Your task to perform on an android device: Play the last video I watched on Youtube Image 0: 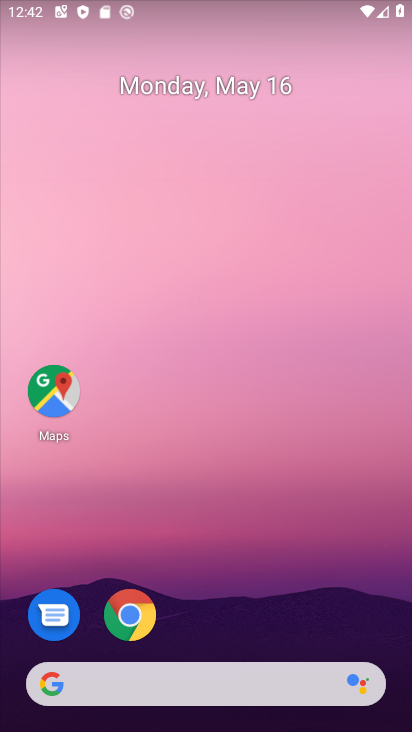
Step 0: drag from (355, 663) to (359, 70)
Your task to perform on an android device: Play the last video I watched on Youtube Image 1: 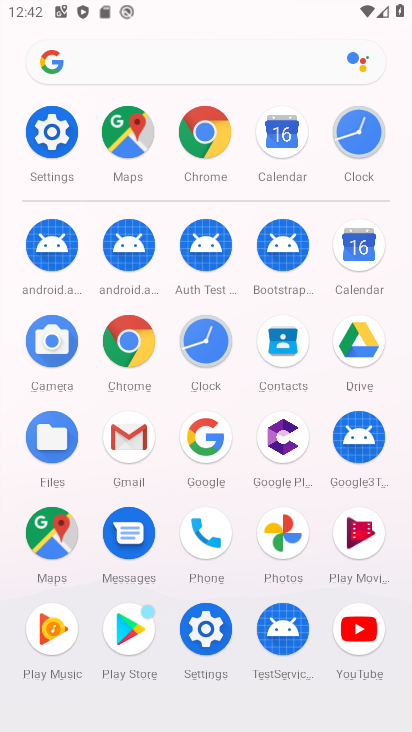
Step 1: click (356, 632)
Your task to perform on an android device: Play the last video I watched on Youtube Image 2: 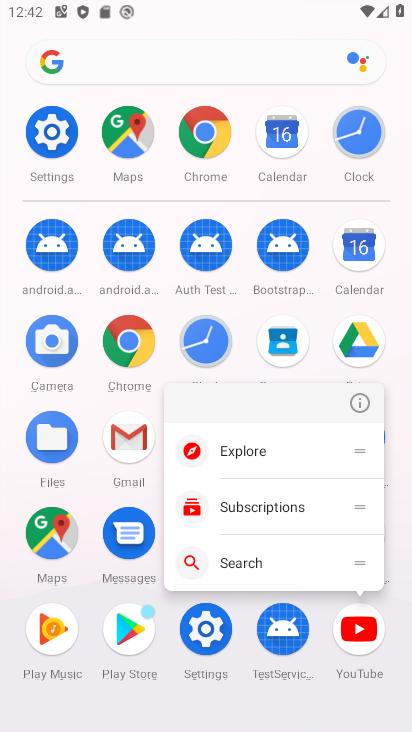
Step 2: click (358, 626)
Your task to perform on an android device: Play the last video I watched on Youtube Image 3: 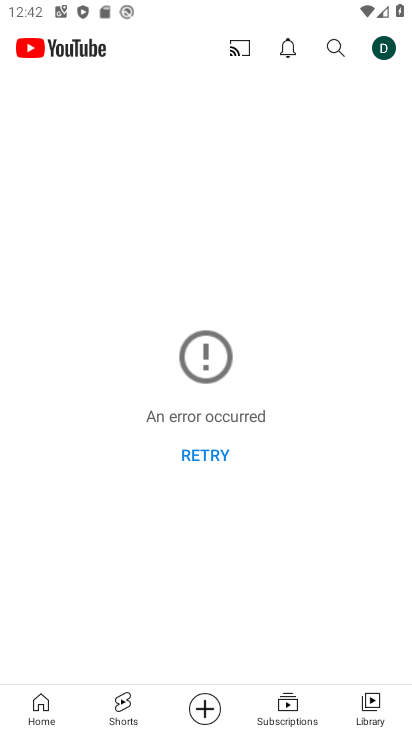
Step 3: click (213, 457)
Your task to perform on an android device: Play the last video I watched on Youtube Image 4: 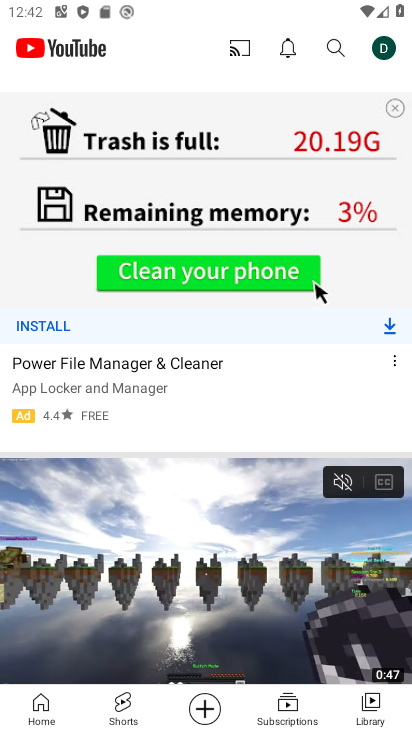
Step 4: click (370, 713)
Your task to perform on an android device: Play the last video I watched on Youtube Image 5: 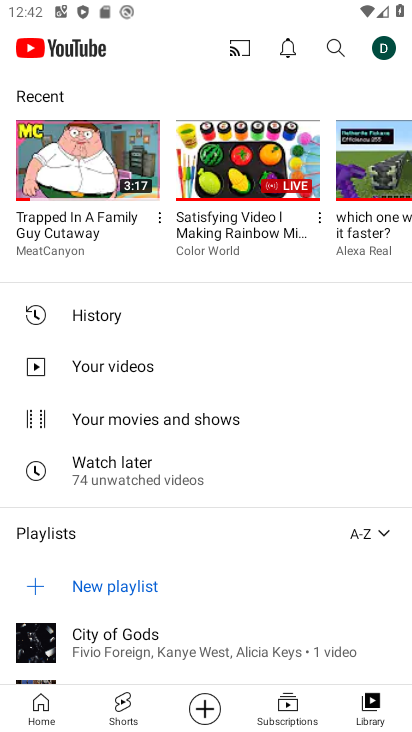
Step 5: click (104, 157)
Your task to perform on an android device: Play the last video I watched on Youtube Image 6: 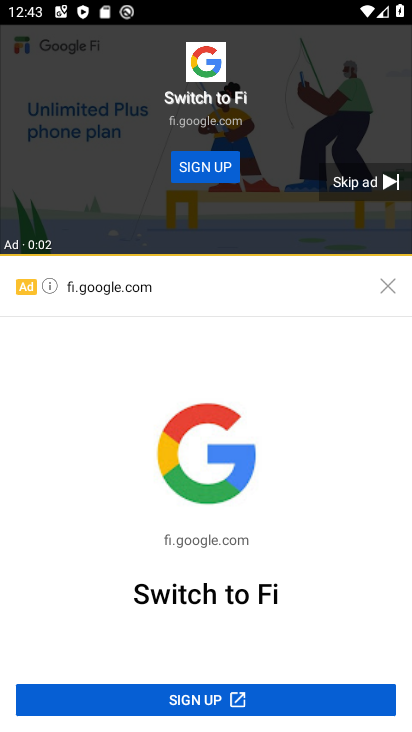
Step 6: task complete